Your task to perform on an android device: allow notifications from all sites in the chrome app Image 0: 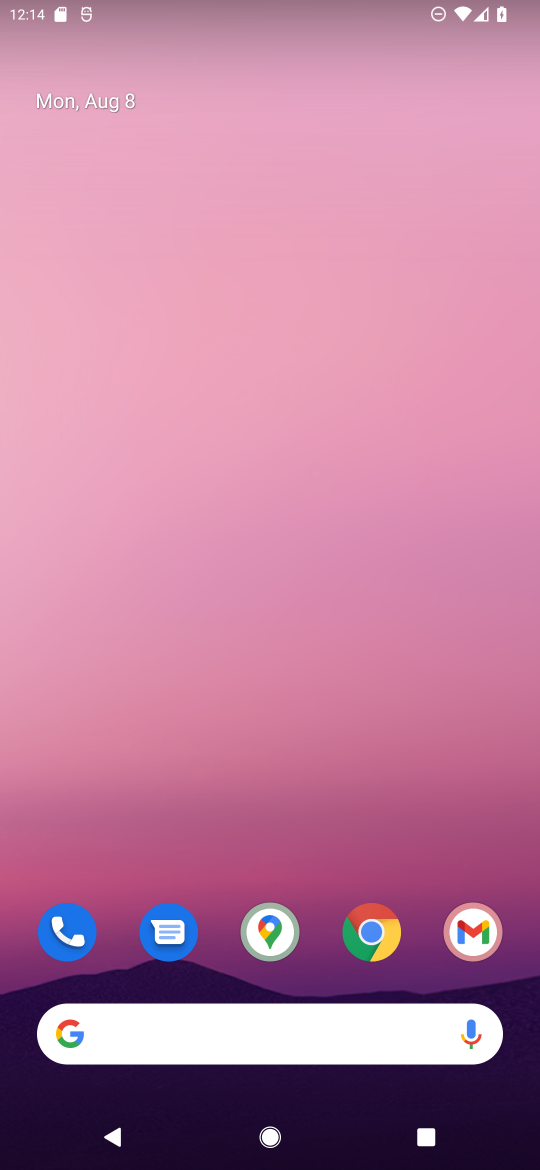
Step 0: click (381, 946)
Your task to perform on an android device: allow notifications from all sites in the chrome app Image 1: 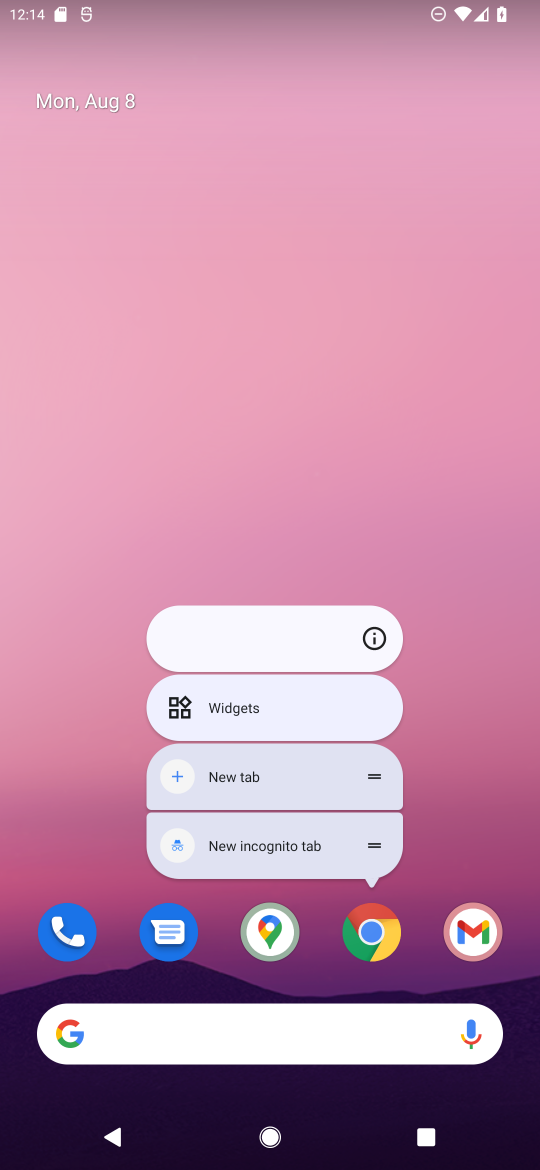
Step 1: click (381, 946)
Your task to perform on an android device: allow notifications from all sites in the chrome app Image 2: 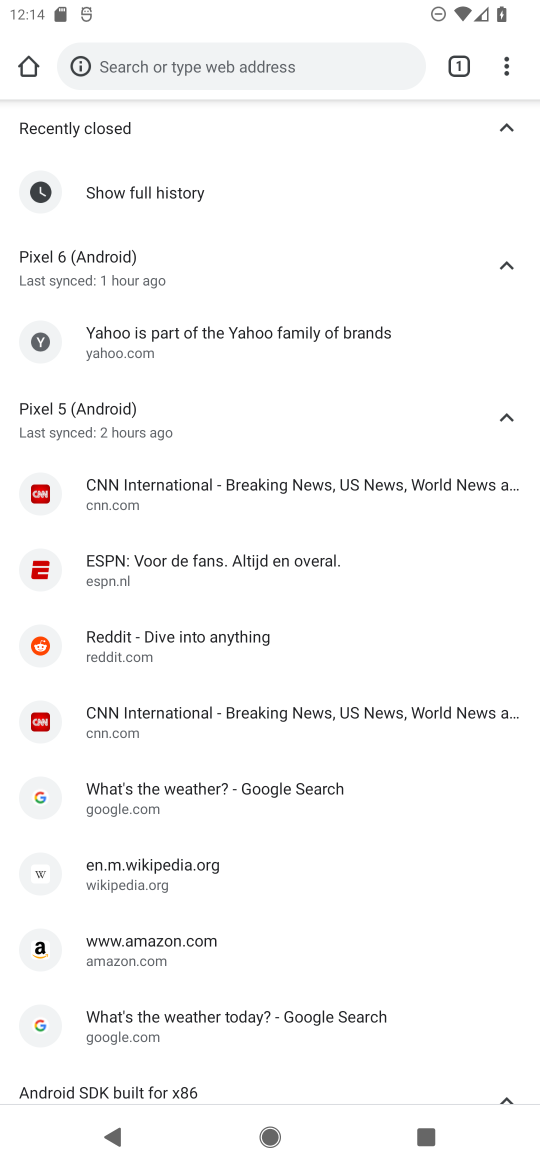
Step 2: click (516, 64)
Your task to perform on an android device: allow notifications from all sites in the chrome app Image 3: 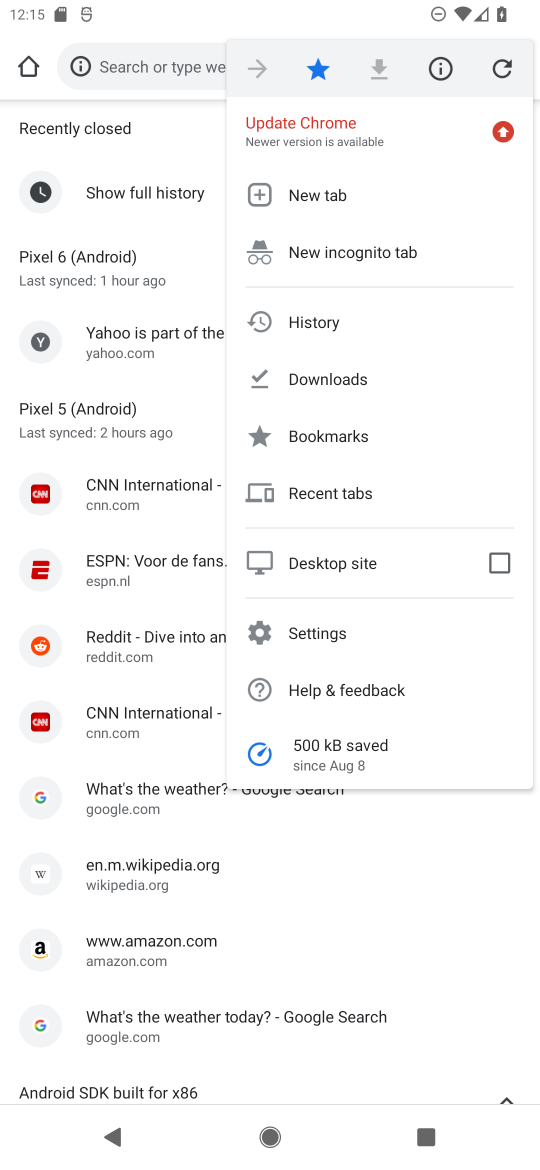
Step 3: click (314, 636)
Your task to perform on an android device: allow notifications from all sites in the chrome app Image 4: 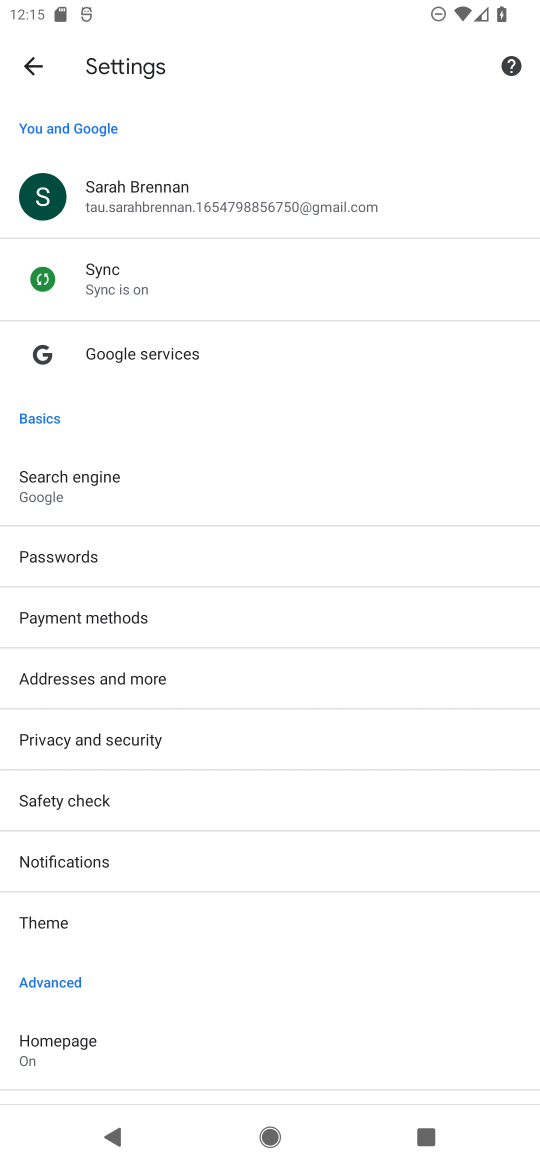
Step 4: click (112, 852)
Your task to perform on an android device: allow notifications from all sites in the chrome app Image 5: 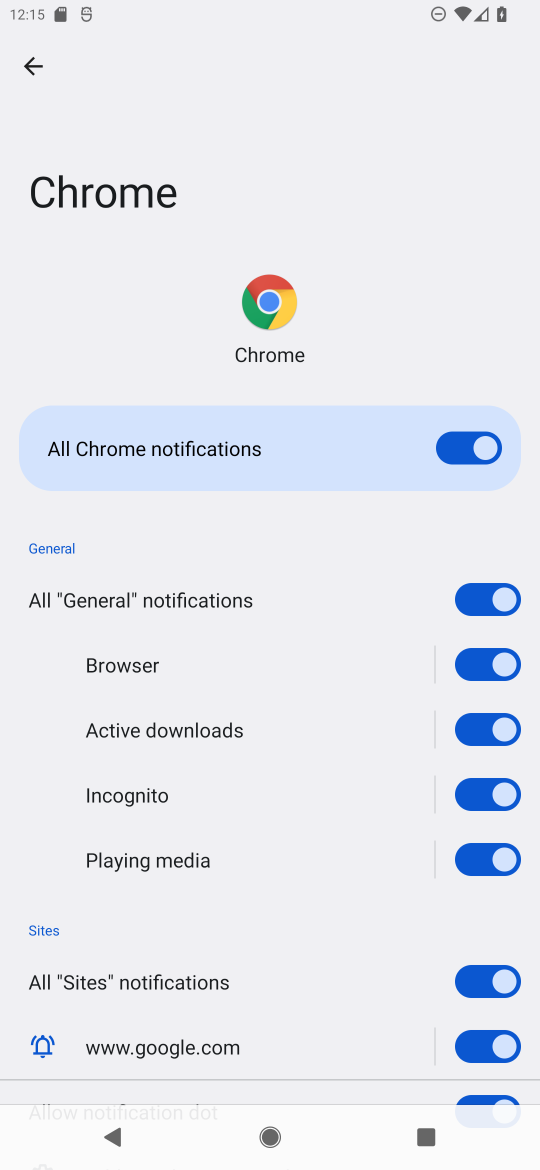
Step 5: task complete